Your task to perform on an android device: delete browsing data in the chrome app Image 0: 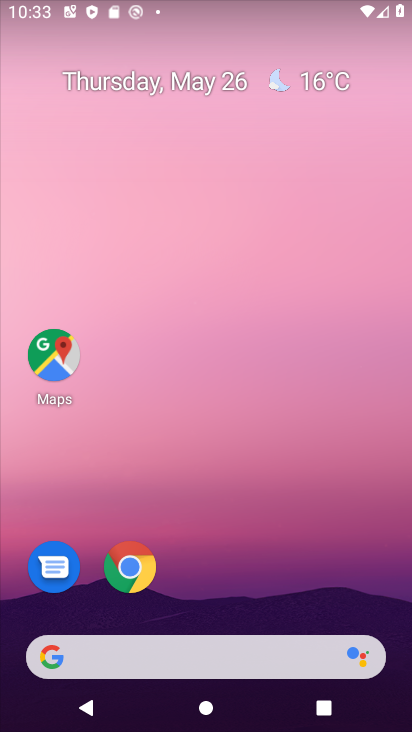
Step 0: press home button
Your task to perform on an android device: delete browsing data in the chrome app Image 1: 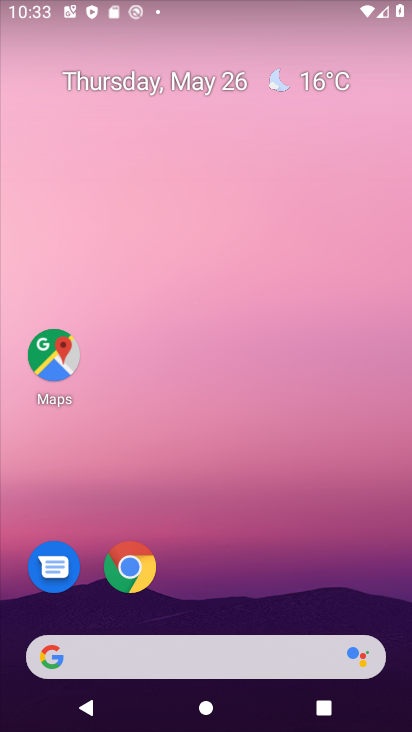
Step 1: click (128, 559)
Your task to perform on an android device: delete browsing data in the chrome app Image 2: 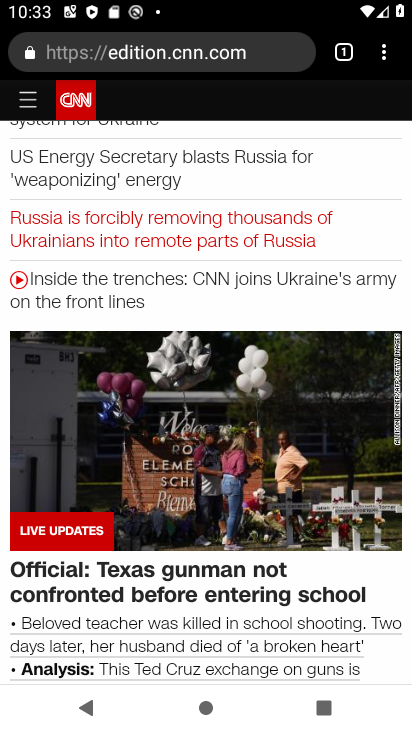
Step 2: click (386, 50)
Your task to perform on an android device: delete browsing data in the chrome app Image 3: 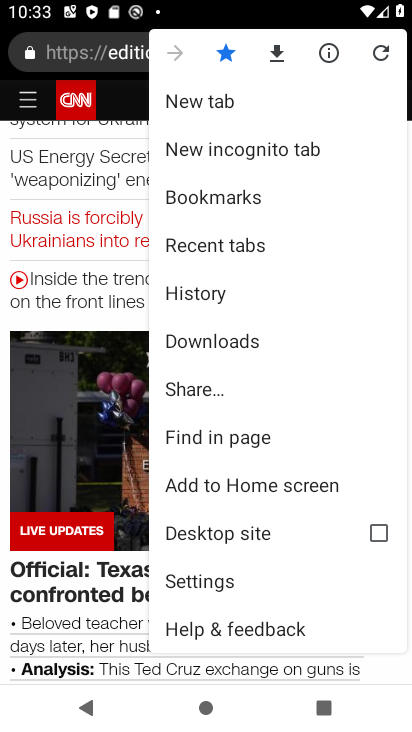
Step 3: click (241, 293)
Your task to perform on an android device: delete browsing data in the chrome app Image 4: 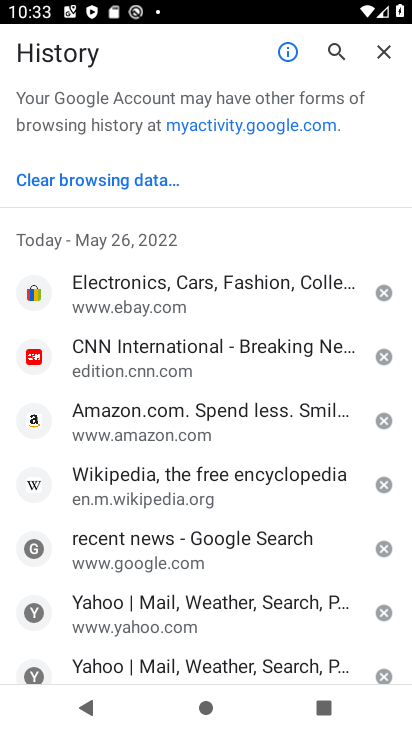
Step 4: click (137, 181)
Your task to perform on an android device: delete browsing data in the chrome app Image 5: 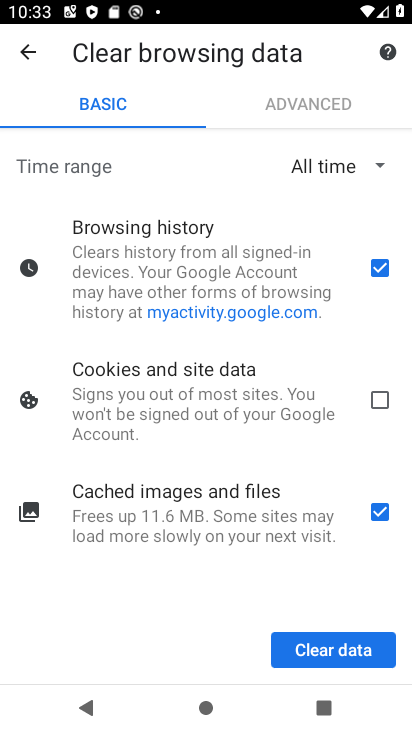
Step 5: click (373, 399)
Your task to perform on an android device: delete browsing data in the chrome app Image 6: 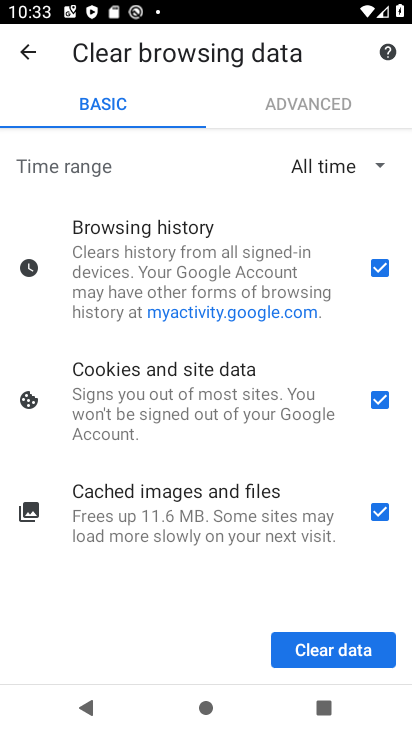
Step 6: click (335, 652)
Your task to perform on an android device: delete browsing data in the chrome app Image 7: 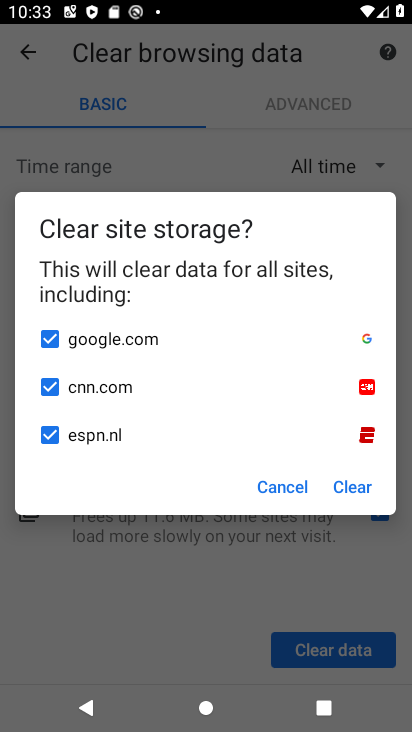
Step 7: click (353, 484)
Your task to perform on an android device: delete browsing data in the chrome app Image 8: 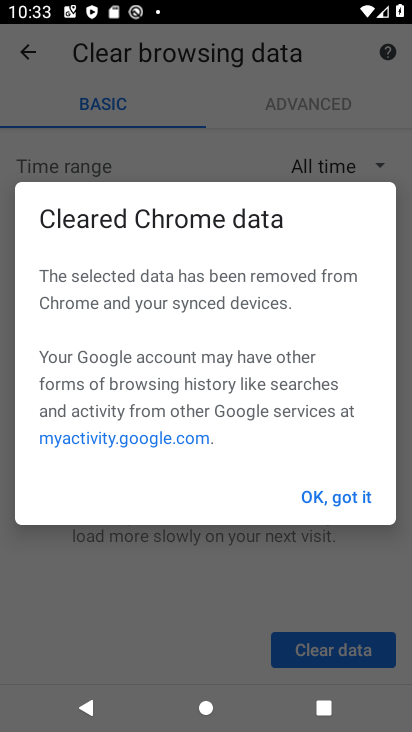
Step 8: click (333, 503)
Your task to perform on an android device: delete browsing data in the chrome app Image 9: 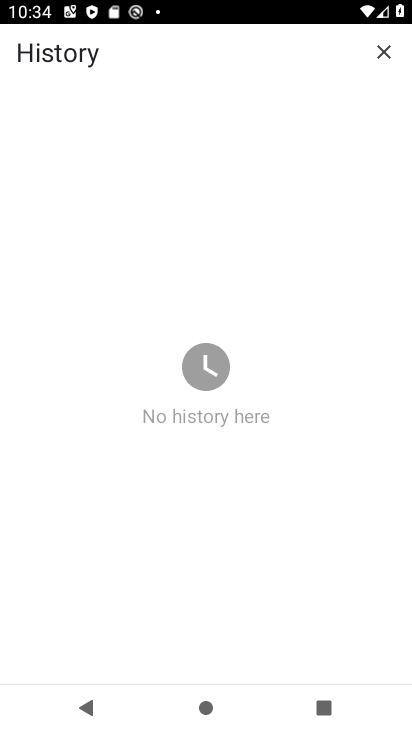
Step 9: task complete